Your task to perform on an android device: Go to Wikipedia Image 0: 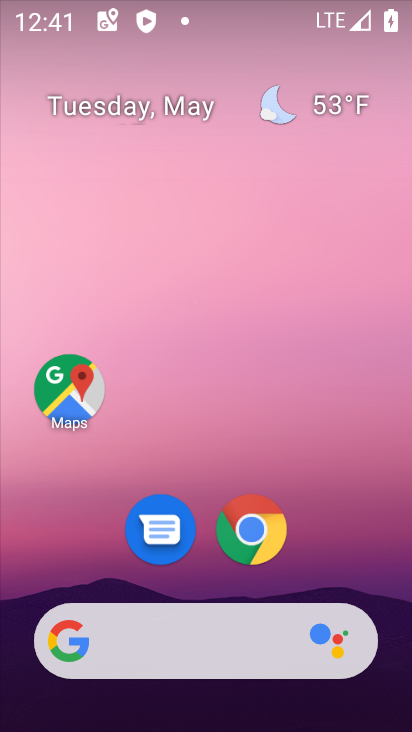
Step 0: click (254, 526)
Your task to perform on an android device: Go to Wikipedia Image 1: 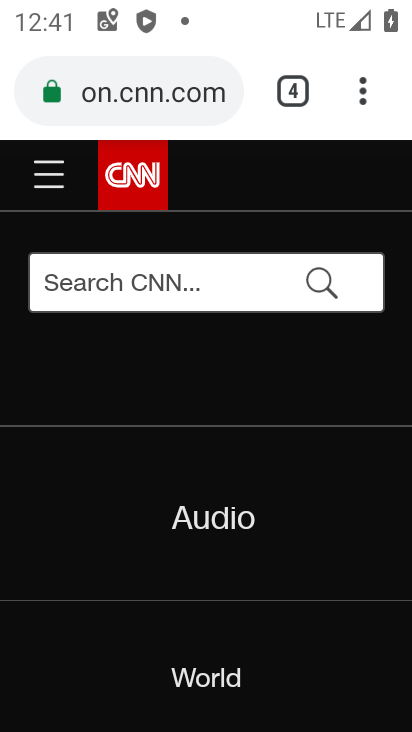
Step 1: click (363, 101)
Your task to perform on an android device: Go to Wikipedia Image 2: 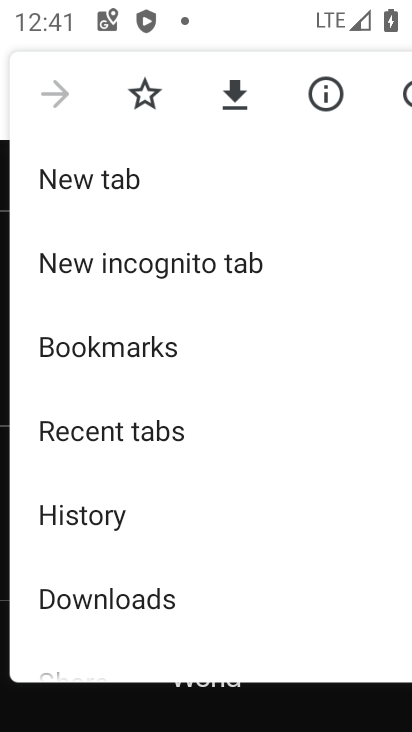
Step 2: click (101, 180)
Your task to perform on an android device: Go to Wikipedia Image 3: 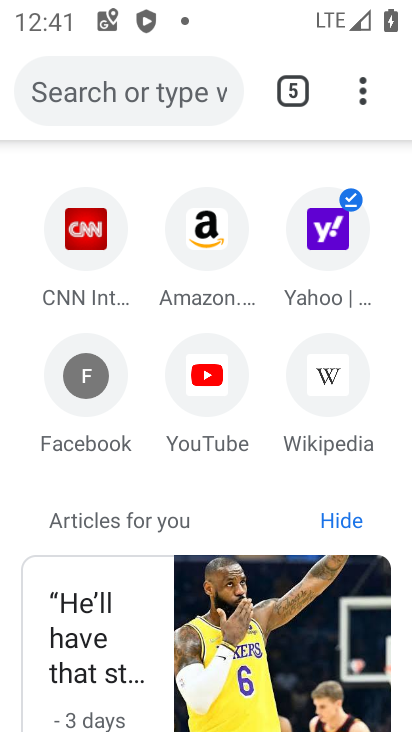
Step 3: click (339, 383)
Your task to perform on an android device: Go to Wikipedia Image 4: 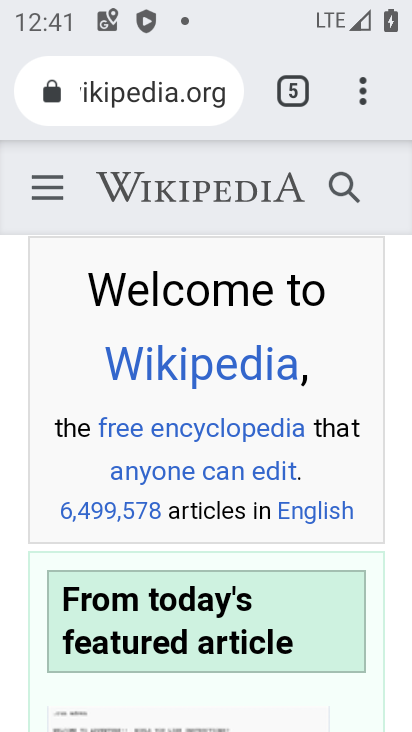
Step 4: task complete